Your task to perform on an android device: set the stopwatch Image 0: 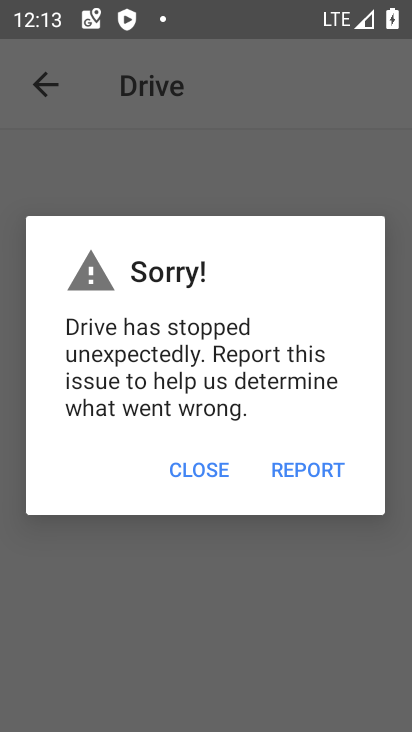
Step 0: press home button
Your task to perform on an android device: set the stopwatch Image 1: 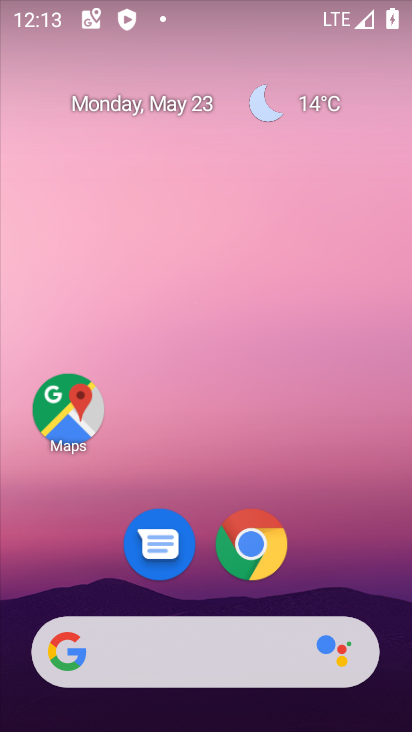
Step 1: drag from (286, 521) to (287, 239)
Your task to perform on an android device: set the stopwatch Image 2: 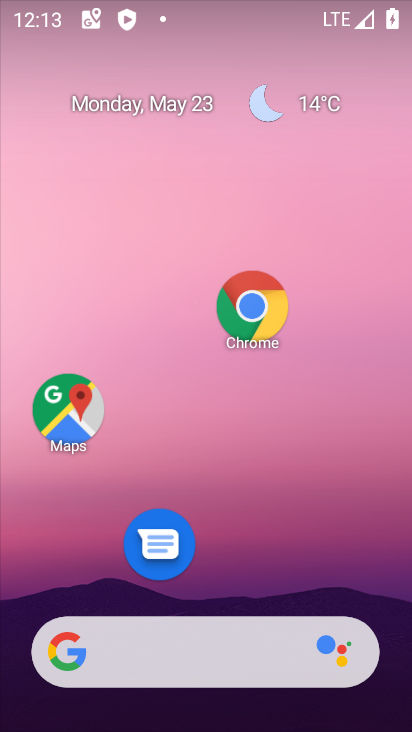
Step 2: drag from (262, 533) to (264, 75)
Your task to perform on an android device: set the stopwatch Image 3: 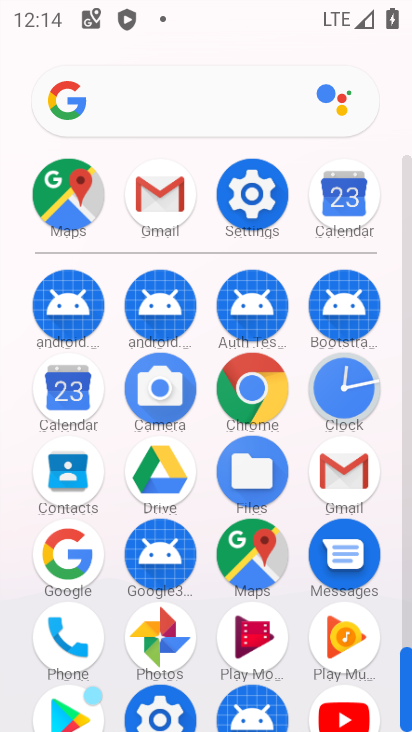
Step 3: drag from (193, 703) to (222, 428)
Your task to perform on an android device: set the stopwatch Image 4: 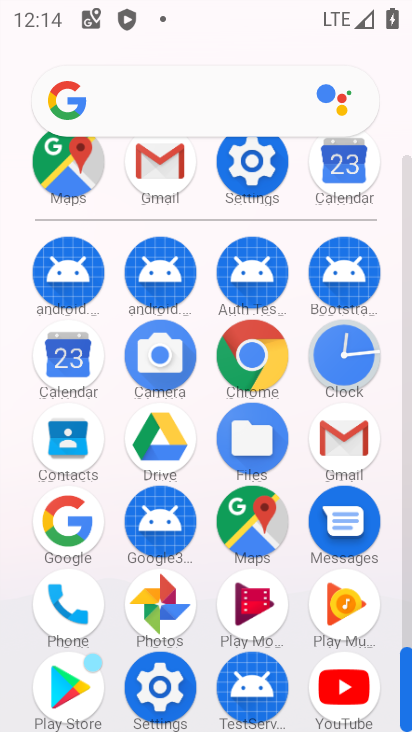
Step 4: click (341, 356)
Your task to perform on an android device: set the stopwatch Image 5: 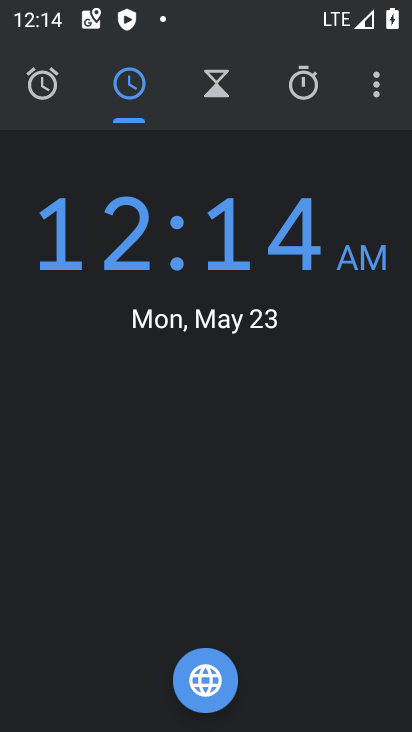
Step 5: click (324, 94)
Your task to perform on an android device: set the stopwatch Image 6: 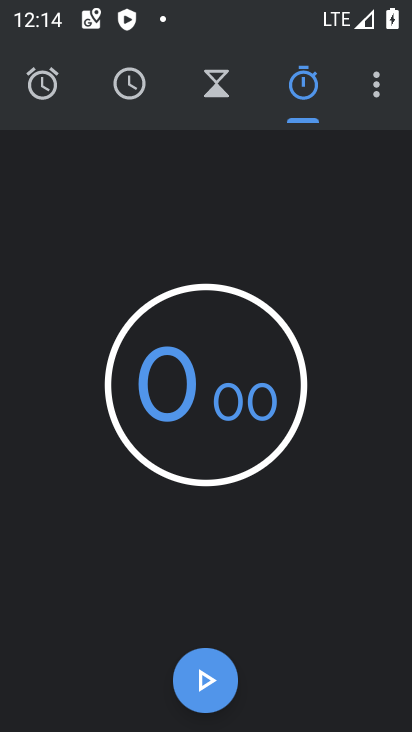
Step 6: click (206, 697)
Your task to perform on an android device: set the stopwatch Image 7: 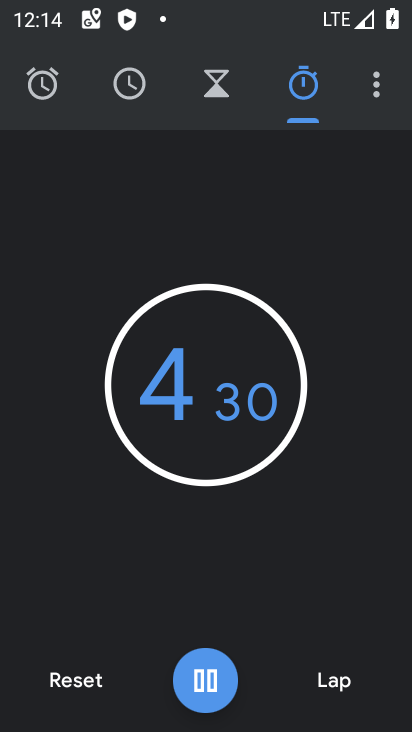
Step 7: click (200, 678)
Your task to perform on an android device: set the stopwatch Image 8: 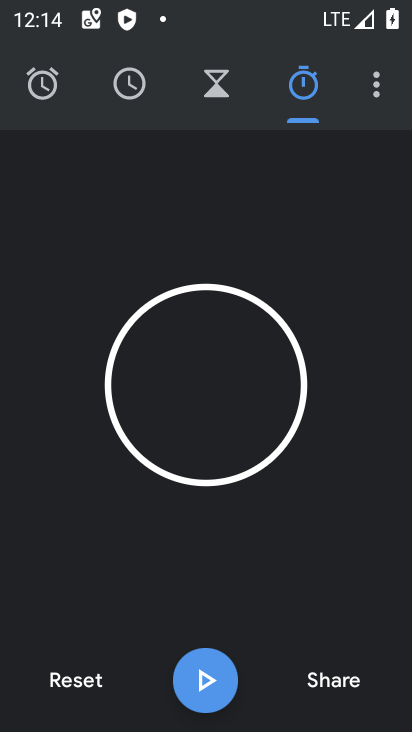
Step 8: task complete